Your task to perform on an android device: all mails in gmail Image 0: 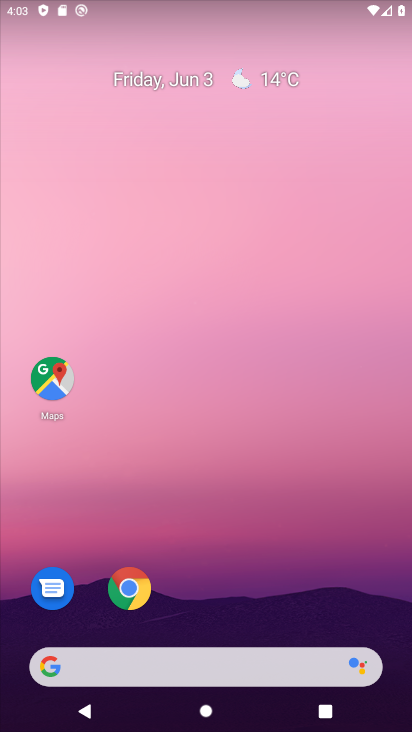
Step 0: drag from (271, 596) to (217, 125)
Your task to perform on an android device: all mails in gmail Image 1: 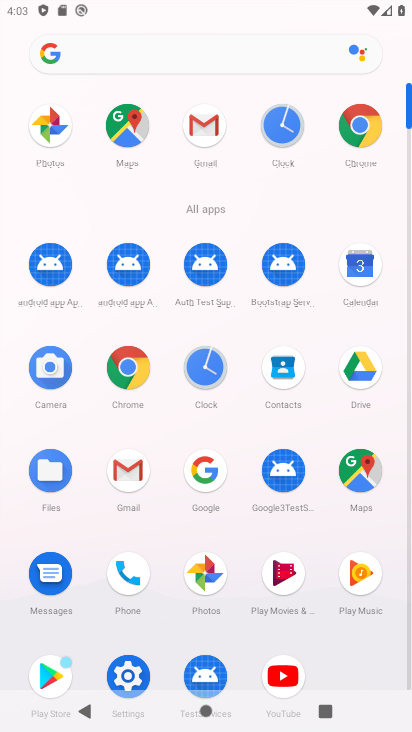
Step 1: click (207, 151)
Your task to perform on an android device: all mails in gmail Image 2: 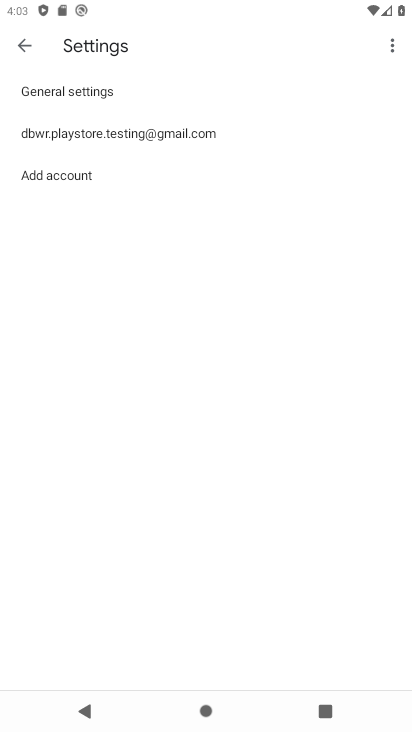
Step 2: click (14, 41)
Your task to perform on an android device: all mails in gmail Image 3: 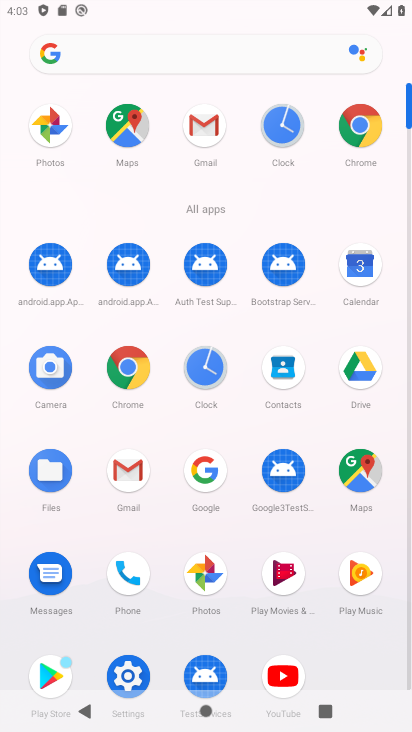
Step 3: click (186, 131)
Your task to perform on an android device: all mails in gmail Image 4: 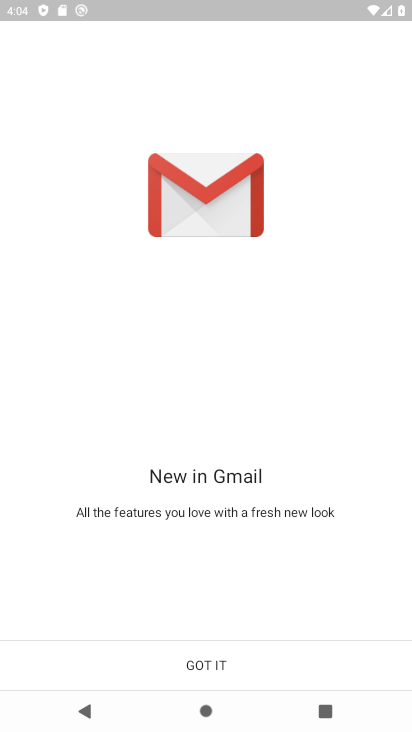
Step 4: click (227, 671)
Your task to perform on an android device: all mails in gmail Image 5: 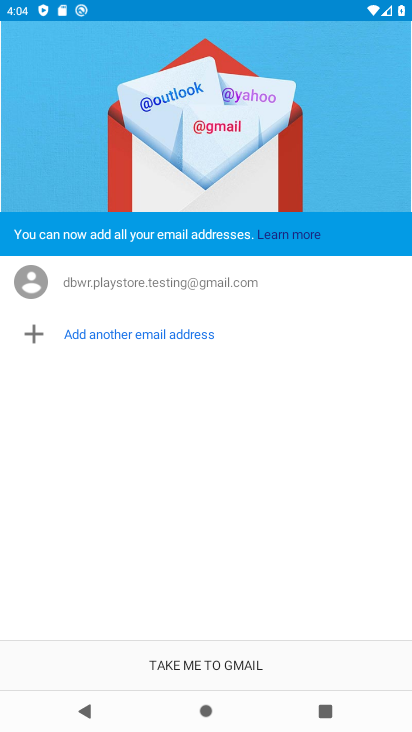
Step 5: click (212, 659)
Your task to perform on an android device: all mails in gmail Image 6: 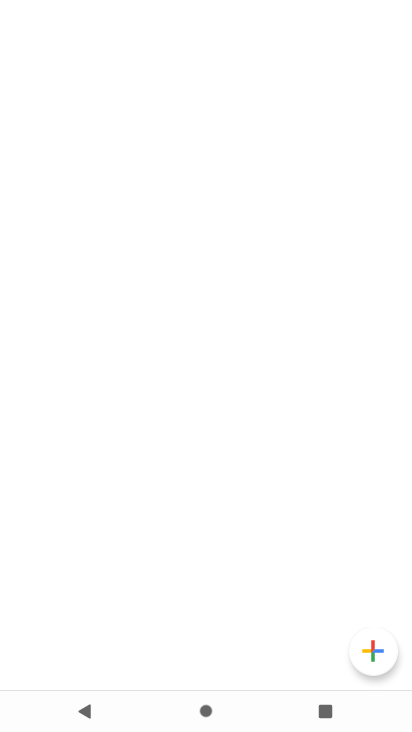
Step 6: click (212, 659)
Your task to perform on an android device: all mails in gmail Image 7: 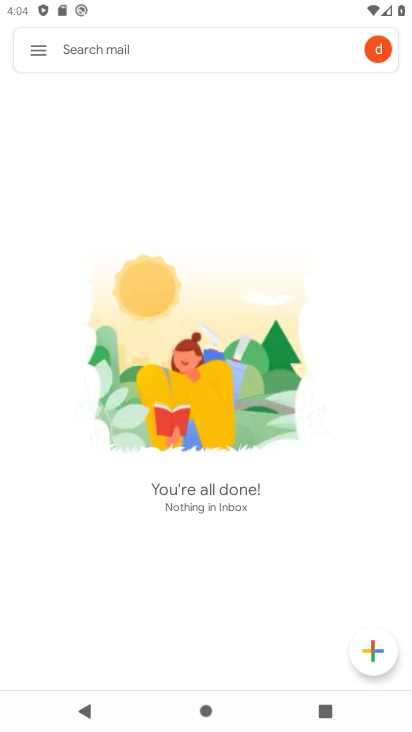
Step 7: click (37, 43)
Your task to perform on an android device: all mails in gmail Image 8: 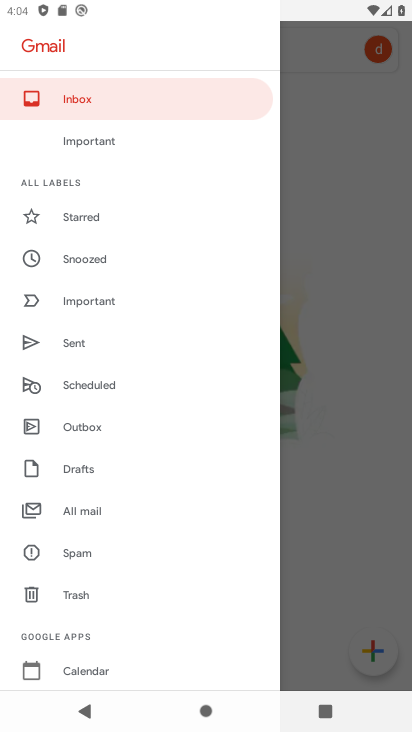
Step 8: drag from (120, 606) to (108, 461)
Your task to perform on an android device: all mails in gmail Image 9: 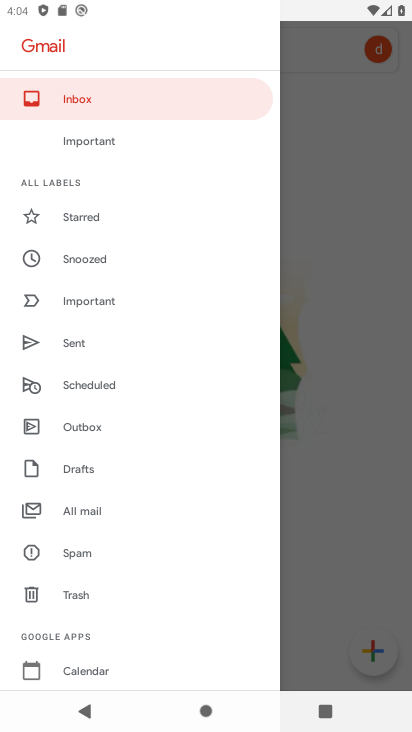
Step 9: click (100, 506)
Your task to perform on an android device: all mails in gmail Image 10: 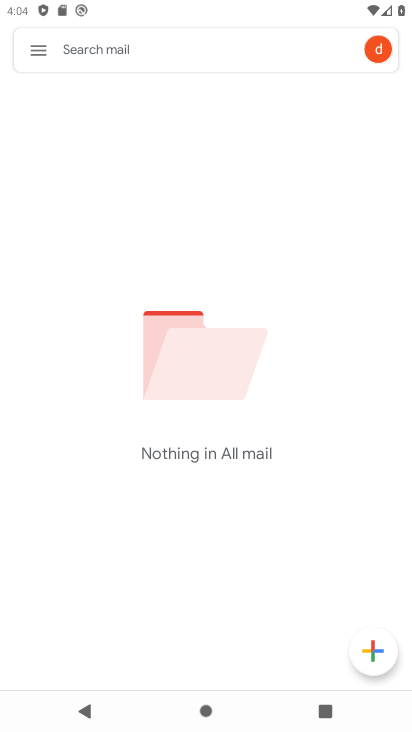
Step 10: task complete